Your task to perform on an android device: change the upload size in google photos Image 0: 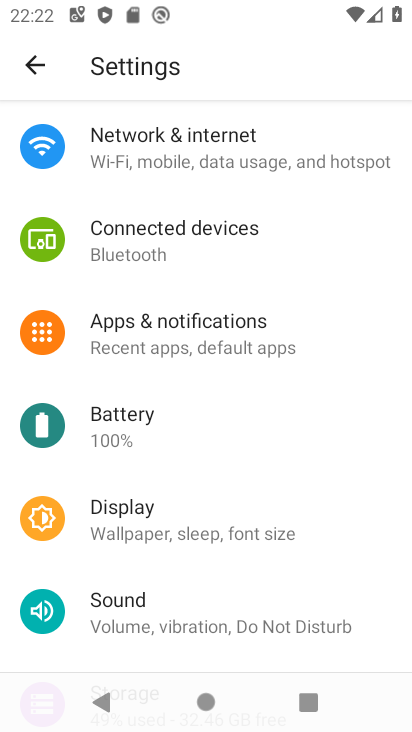
Step 0: press home button
Your task to perform on an android device: change the upload size in google photos Image 1: 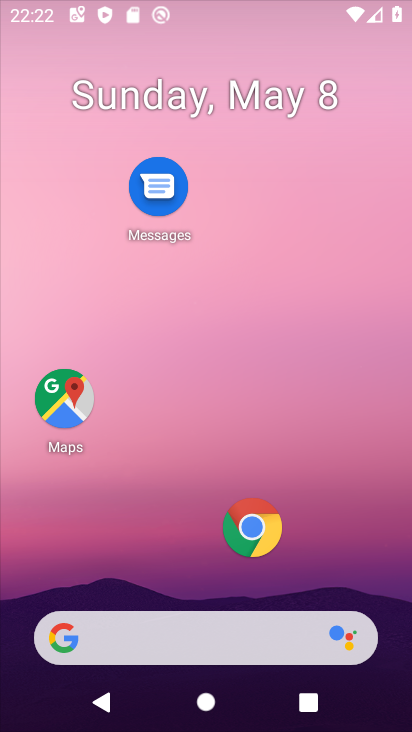
Step 1: drag from (200, 565) to (217, 36)
Your task to perform on an android device: change the upload size in google photos Image 2: 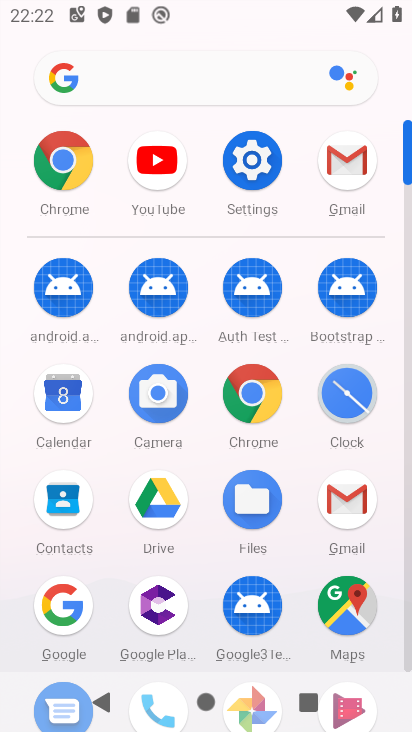
Step 2: drag from (198, 599) to (195, 234)
Your task to perform on an android device: change the upload size in google photos Image 3: 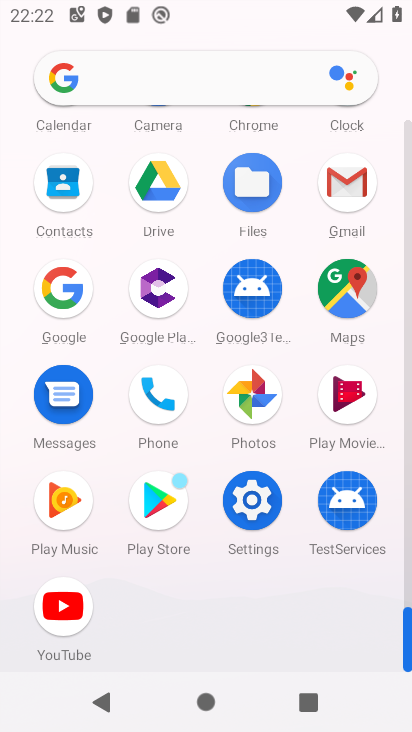
Step 3: click (247, 395)
Your task to perform on an android device: change the upload size in google photos Image 4: 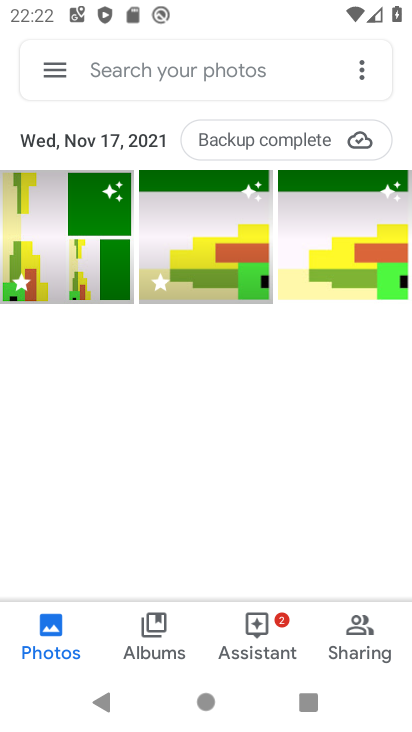
Step 4: click (62, 70)
Your task to perform on an android device: change the upload size in google photos Image 5: 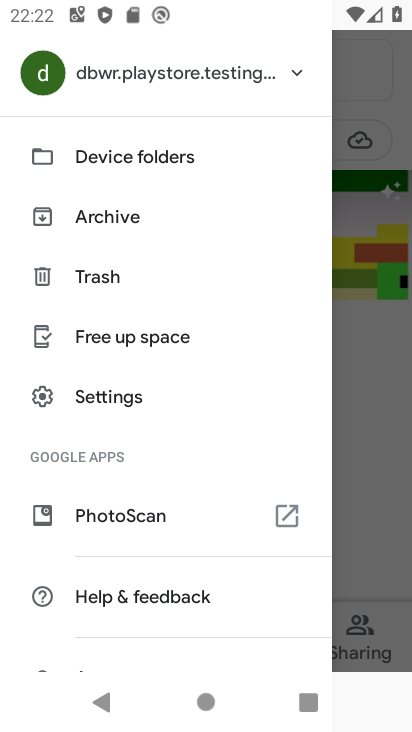
Step 5: click (87, 398)
Your task to perform on an android device: change the upload size in google photos Image 6: 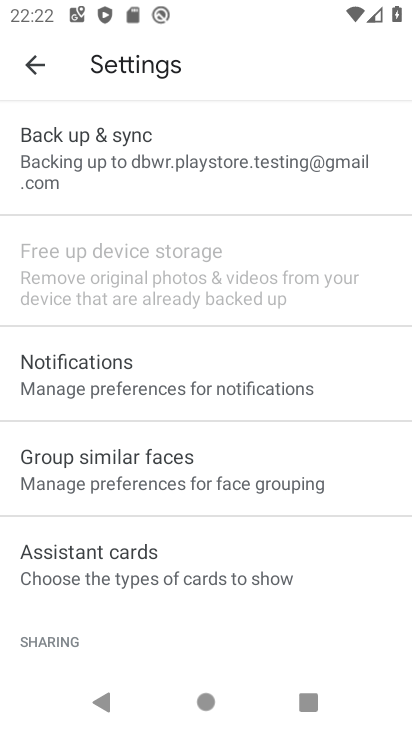
Step 6: drag from (187, 547) to (136, 168)
Your task to perform on an android device: change the upload size in google photos Image 7: 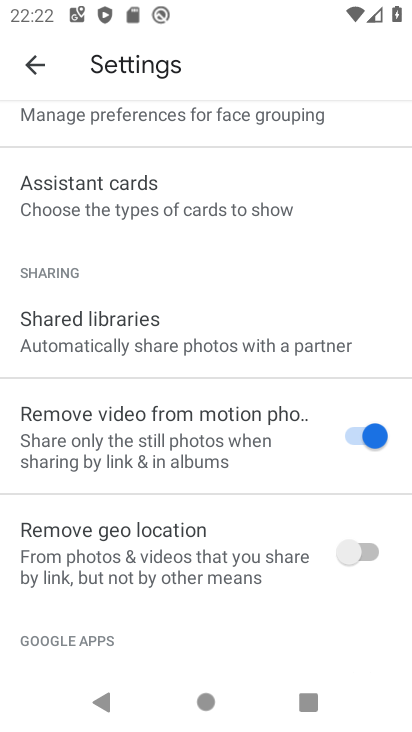
Step 7: drag from (136, 562) to (193, 676)
Your task to perform on an android device: change the upload size in google photos Image 8: 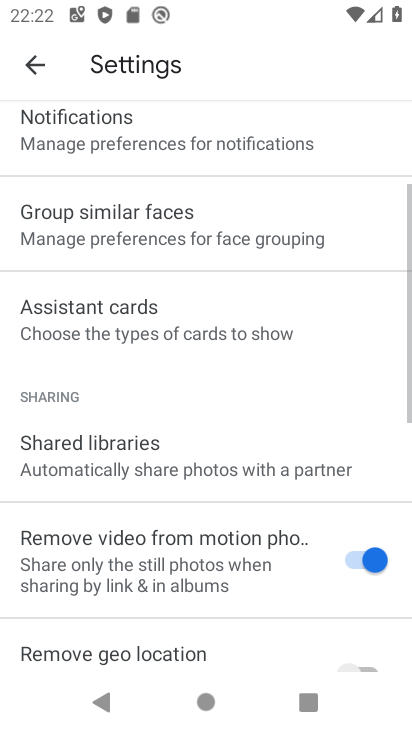
Step 8: drag from (107, 195) to (150, 497)
Your task to perform on an android device: change the upload size in google photos Image 9: 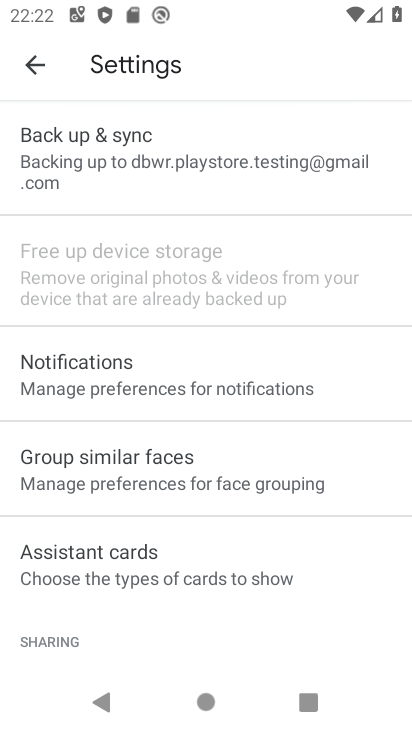
Step 9: click (103, 151)
Your task to perform on an android device: change the upload size in google photos Image 10: 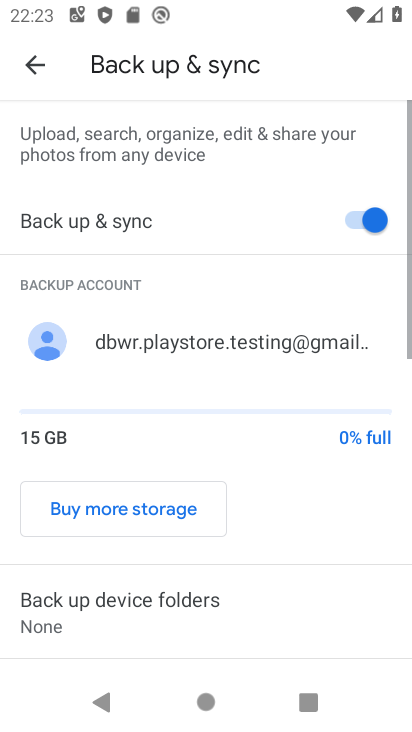
Step 10: drag from (243, 457) to (216, 84)
Your task to perform on an android device: change the upload size in google photos Image 11: 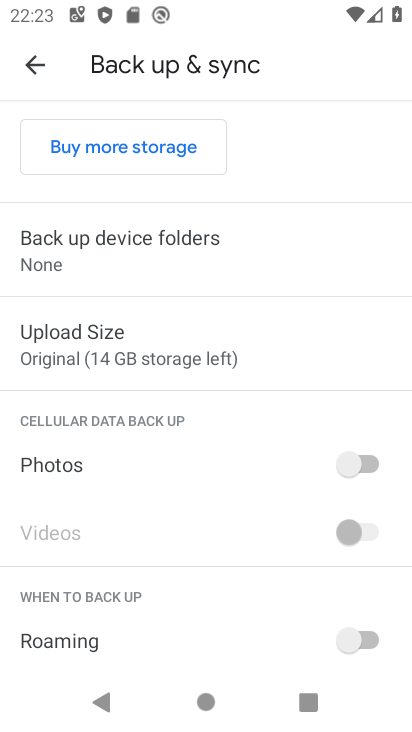
Step 11: click (118, 360)
Your task to perform on an android device: change the upload size in google photos Image 12: 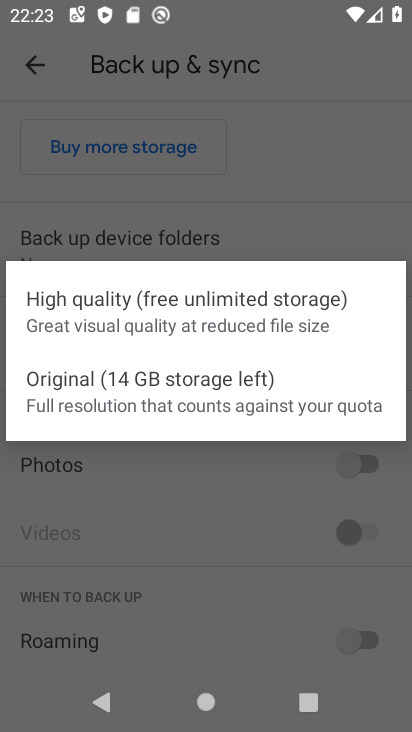
Step 12: click (93, 305)
Your task to perform on an android device: change the upload size in google photos Image 13: 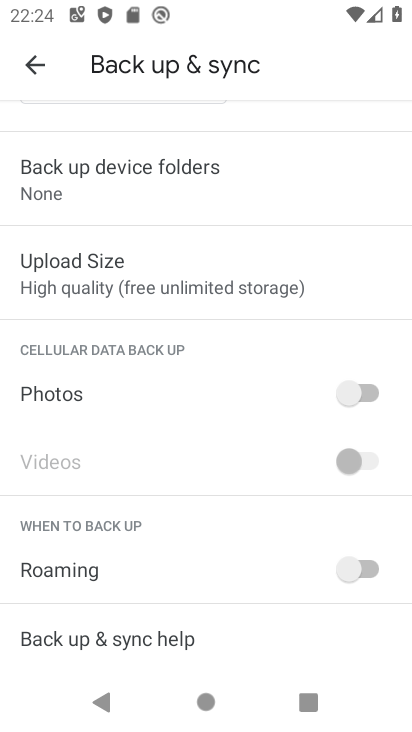
Step 13: task complete